Your task to perform on an android device: Open wifi settings Image 0: 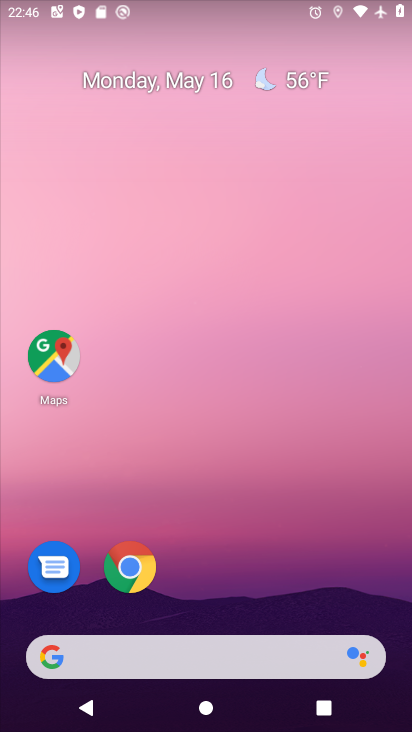
Step 0: drag from (220, 559) to (247, 202)
Your task to perform on an android device: Open wifi settings Image 1: 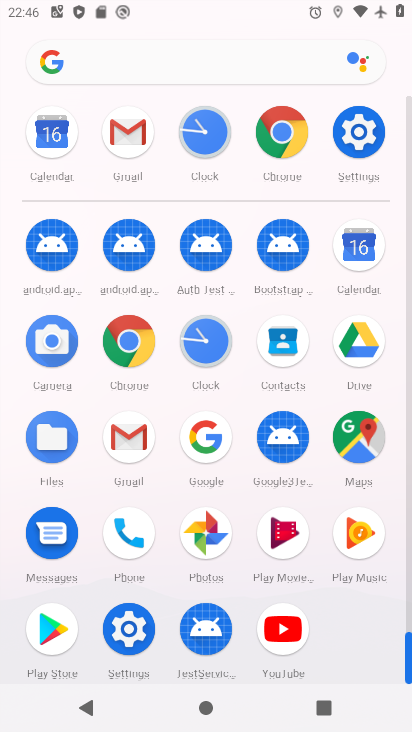
Step 1: click (356, 127)
Your task to perform on an android device: Open wifi settings Image 2: 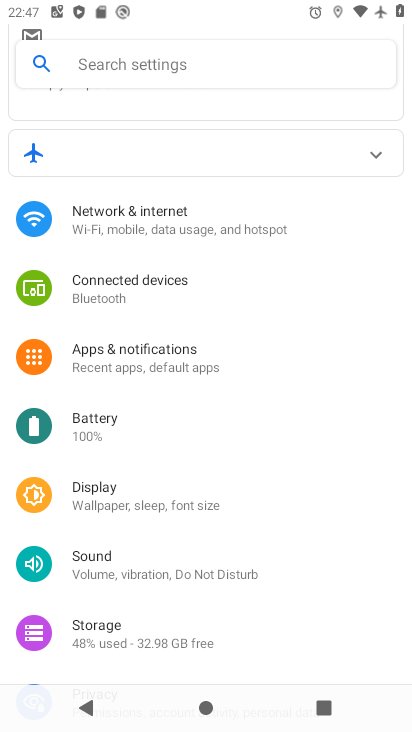
Step 2: click (127, 203)
Your task to perform on an android device: Open wifi settings Image 3: 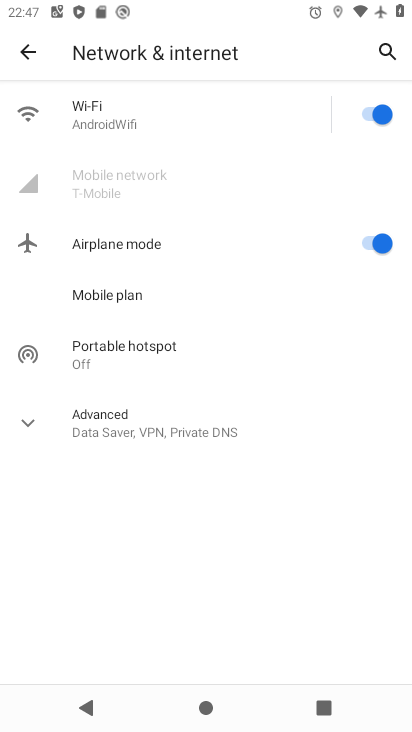
Step 3: click (112, 120)
Your task to perform on an android device: Open wifi settings Image 4: 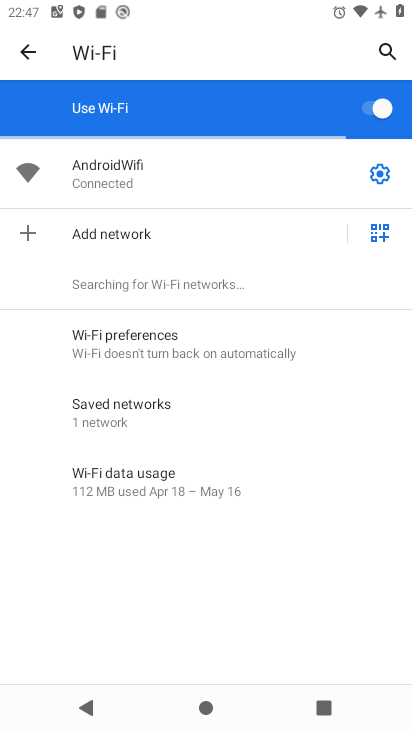
Step 4: task complete